Your task to perform on an android device: open app "Gmail" (install if not already installed), go to login, and select forgot password Image 0: 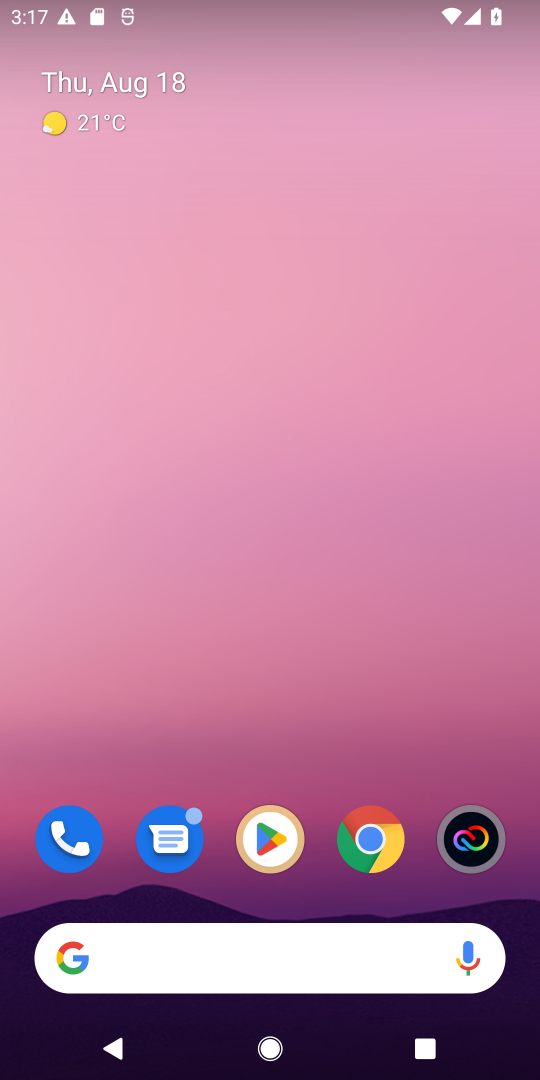
Step 0: drag from (295, 895) to (281, 42)
Your task to perform on an android device: open app "Gmail" (install if not already installed), go to login, and select forgot password Image 1: 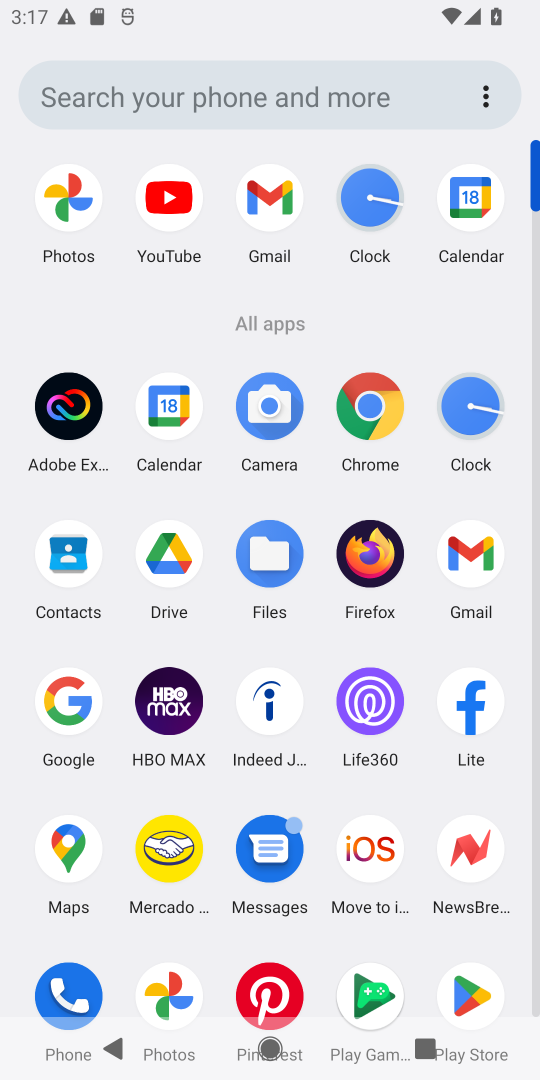
Step 1: click (472, 570)
Your task to perform on an android device: open app "Gmail" (install if not already installed), go to login, and select forgot password Image 2: 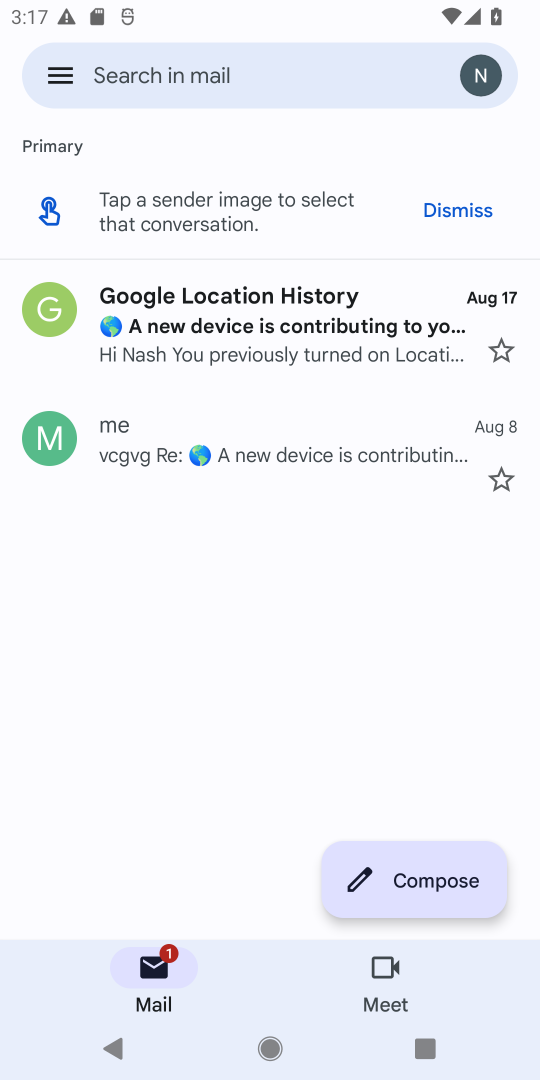
Step 2: click (472, 83)
Your task to perform on an android device: open app "Gmail" (install if not already installed), go to login, and select forgot password Image 3: 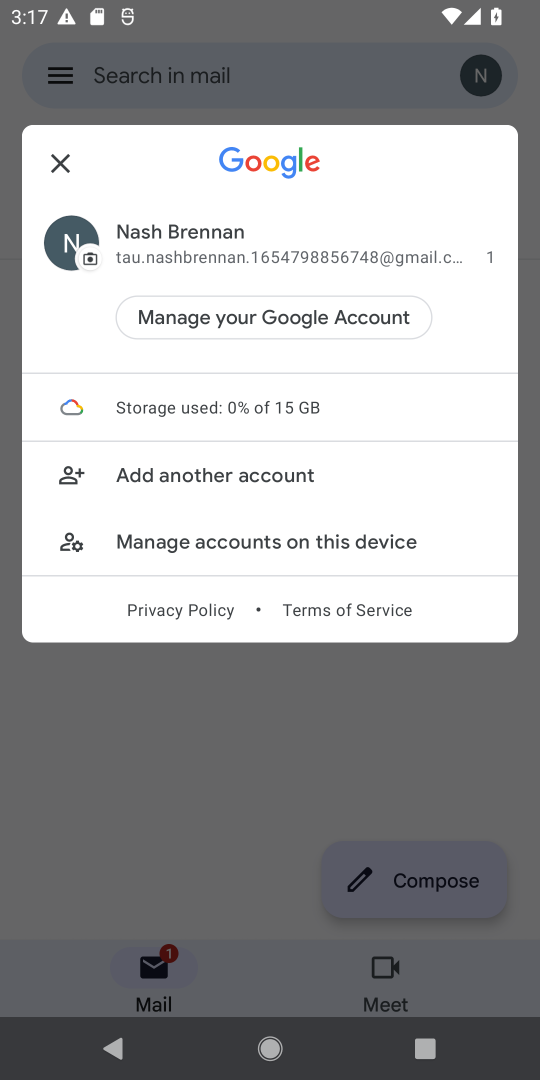
Step 3: click (249, 473)
Your task to perform on an android device: open app "Gmail" (install if not already installed), go to login, and select forgot password Image 4: 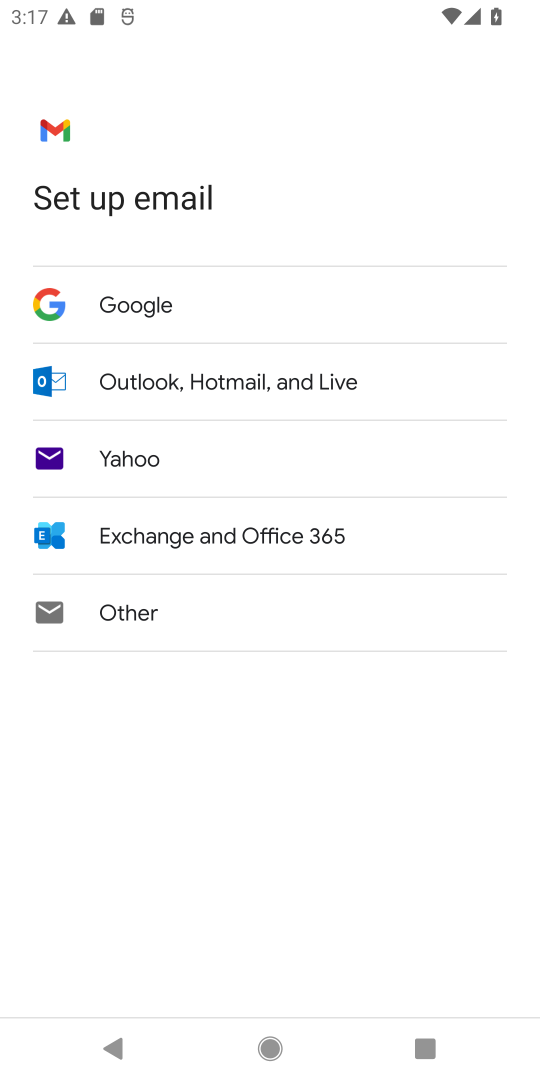
Step 4: click (108, 304)
Your task to perform on an android device: open app "Gmail" (install if not already installed), go to login, and select forgot password Image 5: 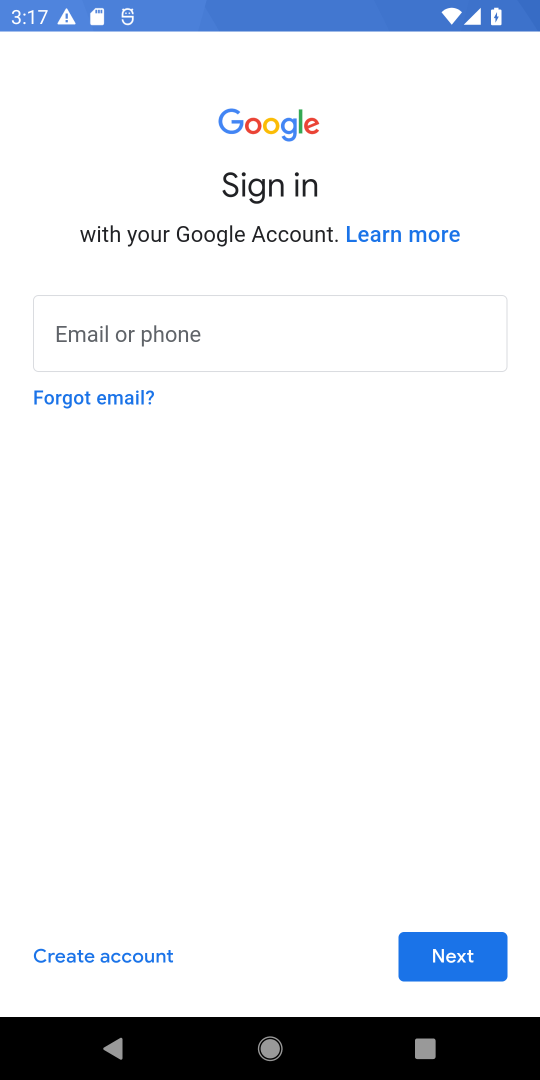
Step 5: click (114, 394)
Your task to perform on an android device: open app "Gmail" (install if not already installed), go to login, and select forgot password Image 6: 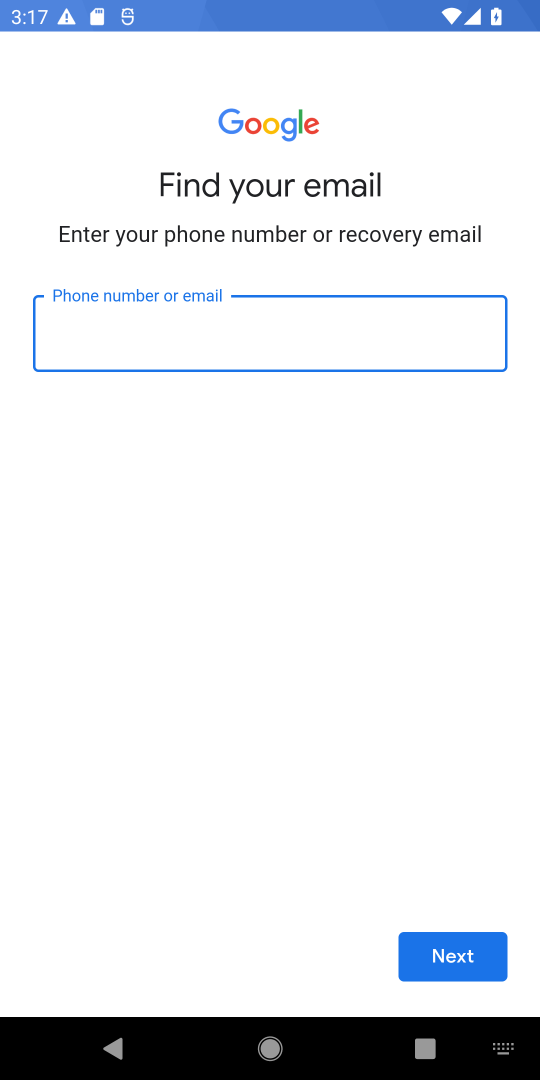
Step 6: task complete